Your task to perform on an android device: Go to location settings Image 0: 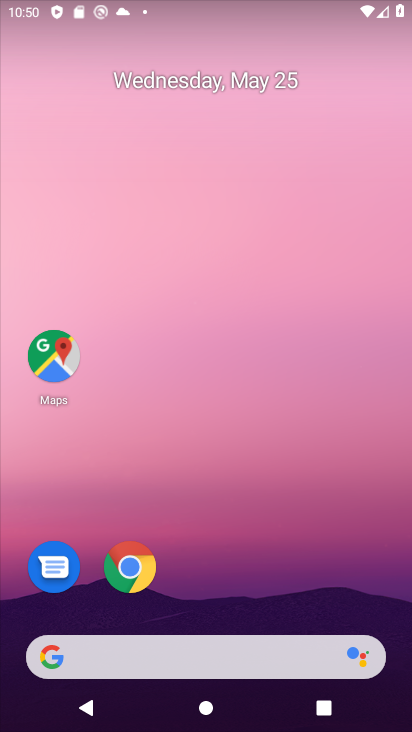
Step 0: drag from (200, 621) to (231, 188)
Your task to perform on an android device: Go to location settings Image 1: 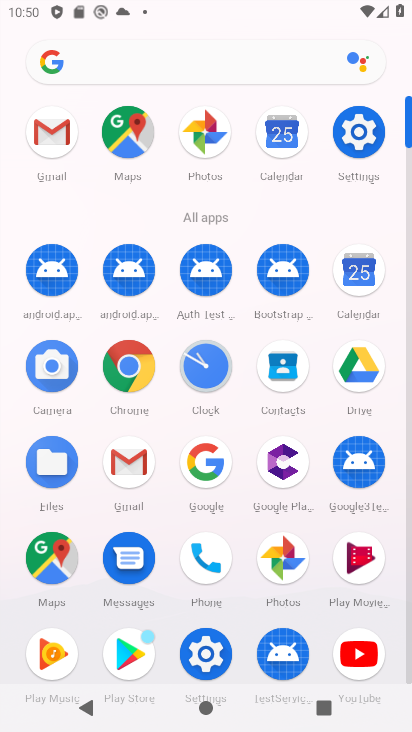
Step 1: click (208, 658)
Your task to perform on an android device: Go to location settings Image 2: 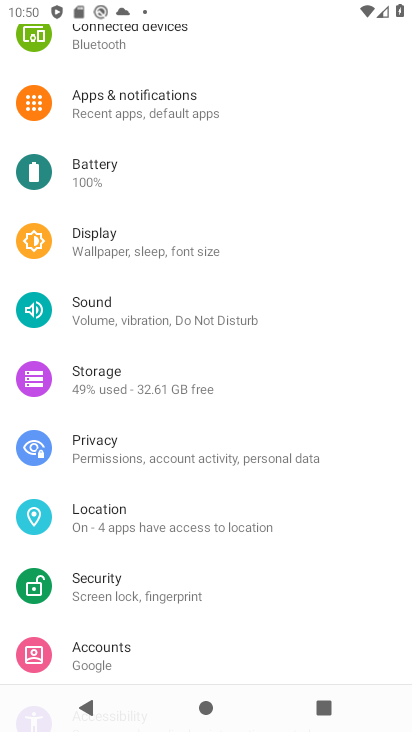
Step 2: click (111, 513)
Your task to perform on an android device: Go to location settings Image 3: 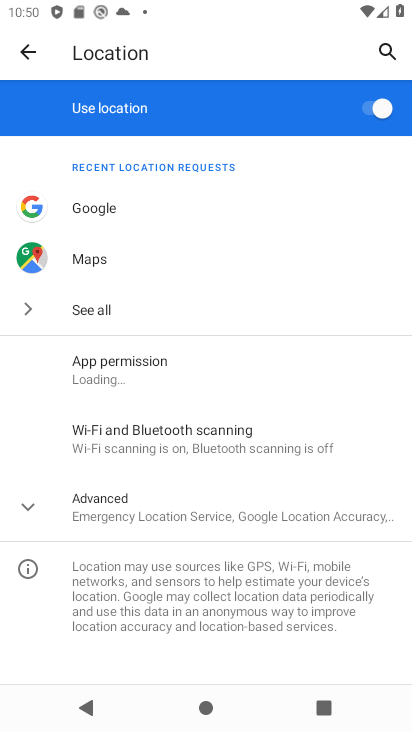
Step 3: task complete